Your task to perform on an android device: Open Chrome and go to settings Image 0: 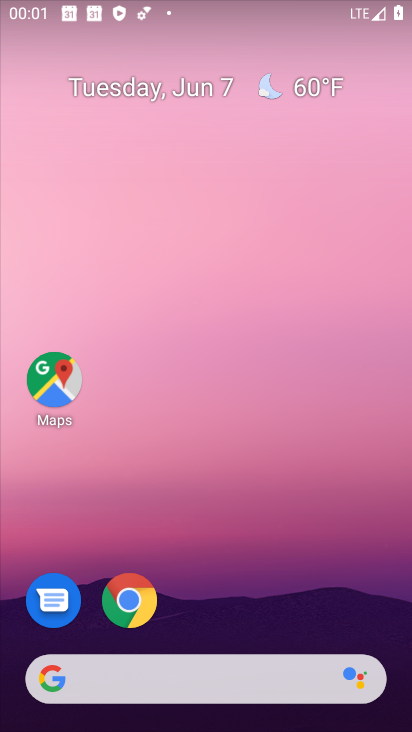
Step 0: click (132, 604)
Your task to perform on an android device: Open Chrome and go to settings Image 1: 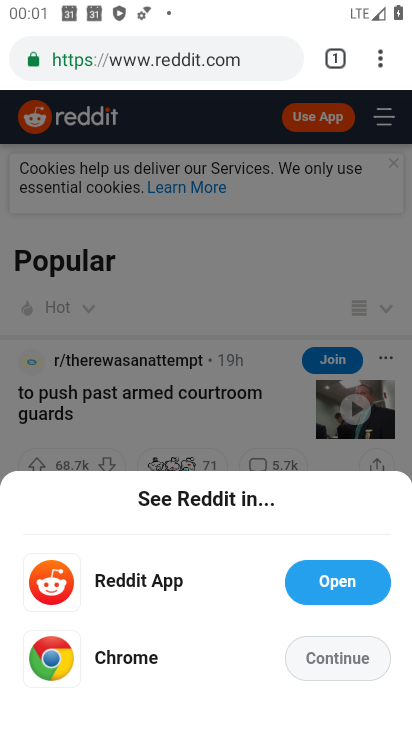
Step 1: click (383, 66)
Your task to perform on an android device: Open Chrome and go to settings Image 2: 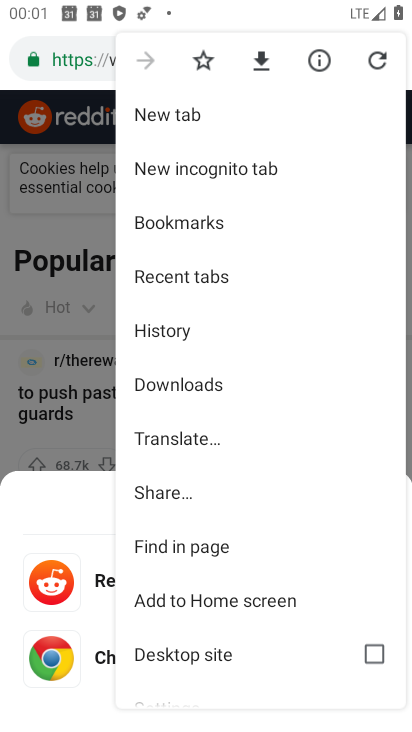
Step 2: drag from (204, 633) to (208, 280)
Your task to perform on an android device: Open Chrome and go to settings Image 3: 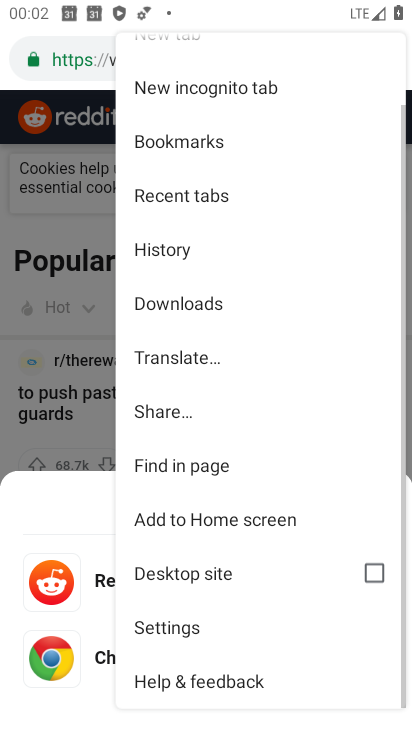
Step 3: click (180, 623)
Your task to perform on an android device: Open Chrome and go to settings Image 4: 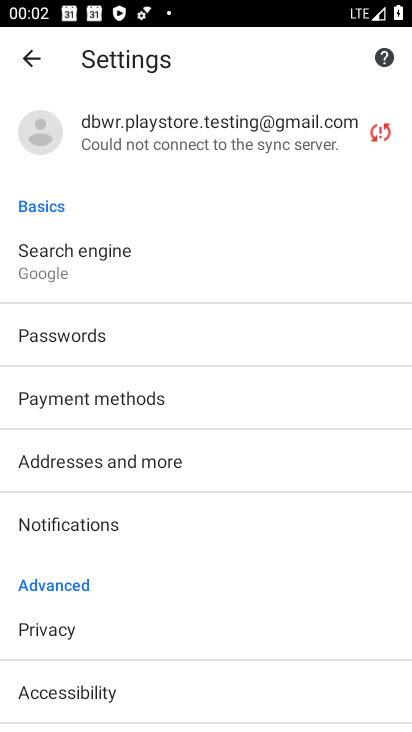
Step 4: task complete